Your task to perform on an android device: Open calendar and show me the second week of next month Image 0: 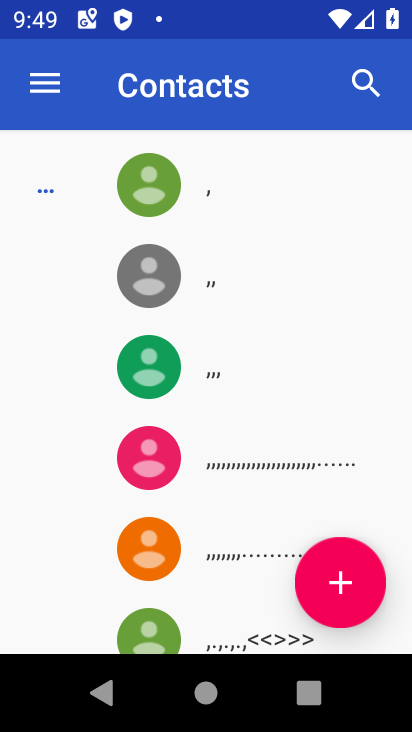
Step 0: press home button
Your task to perform on an android device: Open calendar and show me the second week of next month Image 1: 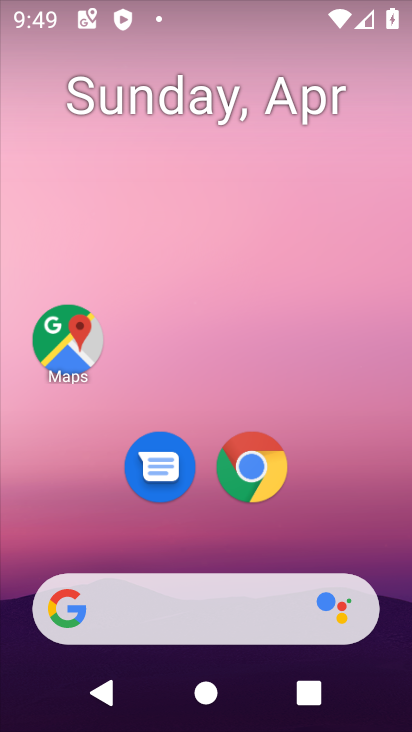
Step 1: drag from (181, 453) to (250, 52)
Your task to perform on an android device: Open calendar and show me the second week of next month Image 2: 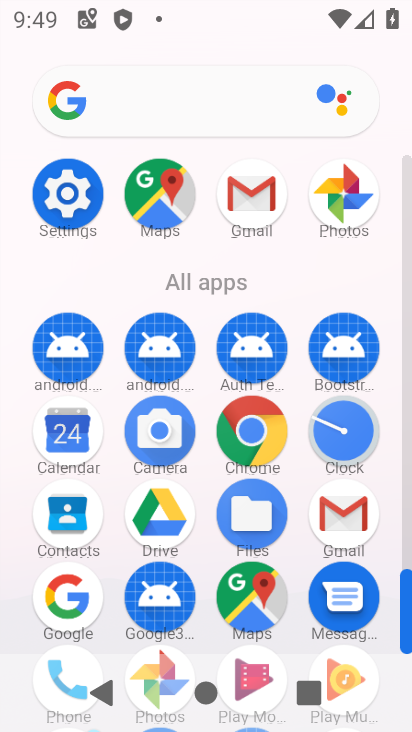
Step 2: click (82, 430)
Your task to perform on an android device: Open calendar and show me the second week of next month Image 3: 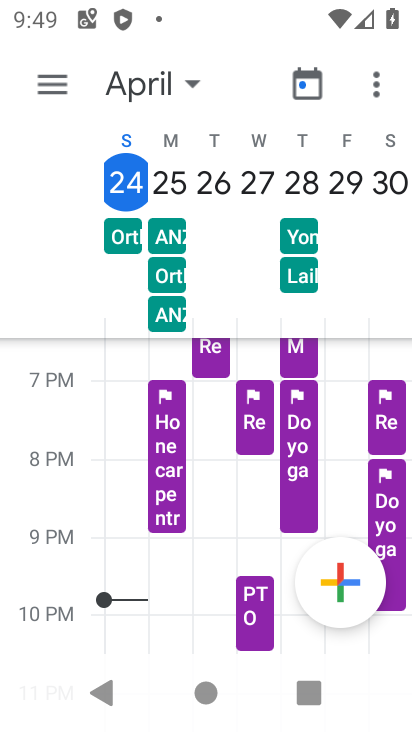
Step 3: click (190, 87)
Your task to perform on an android device: Open calendar and show me the second week of next month Image 4: 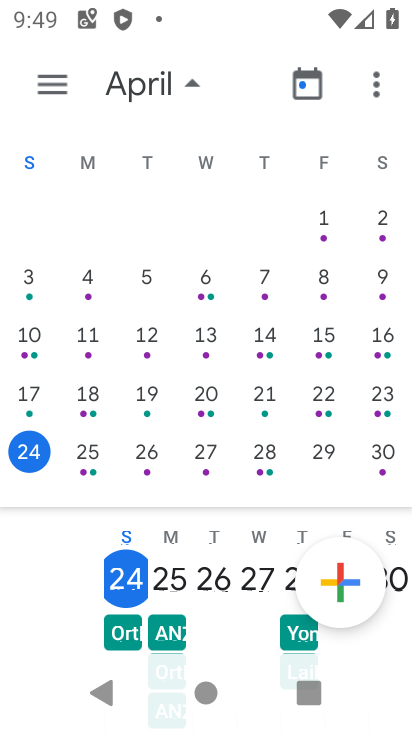
Step 4: drag from (367, 306) to (0, 208)
Your task to perform on an android device: Open calendar and show me the second week of next month Image 5: 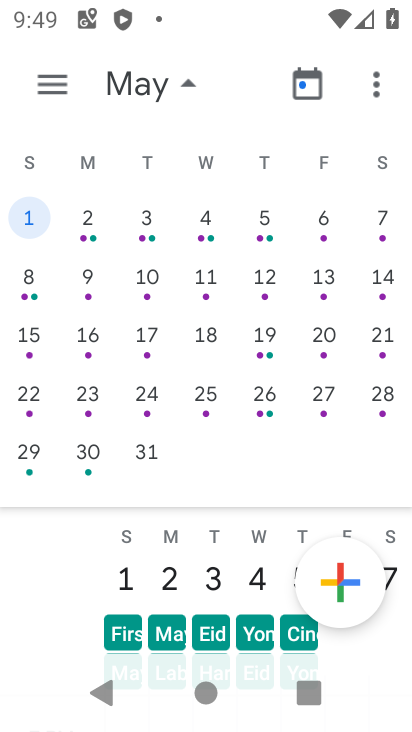
Step 5: click (190, 84)
Your task to perform on an android device: Open calendar and show me the second week of next month Image 6: 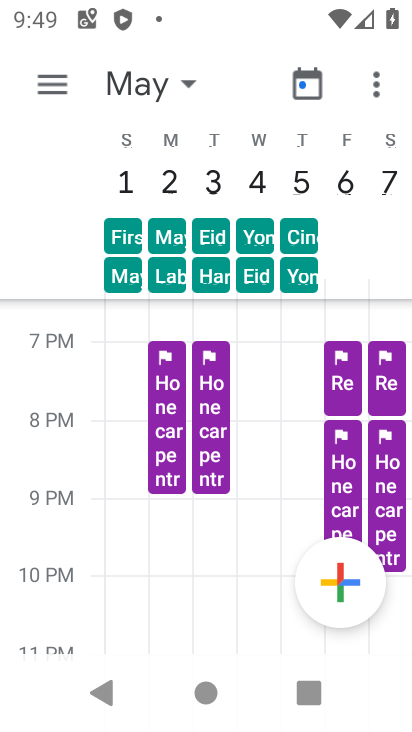
Step 6: click (54, 94)
Your task to perform on an android device: Open calendar and show me the second week of next month Image 7: 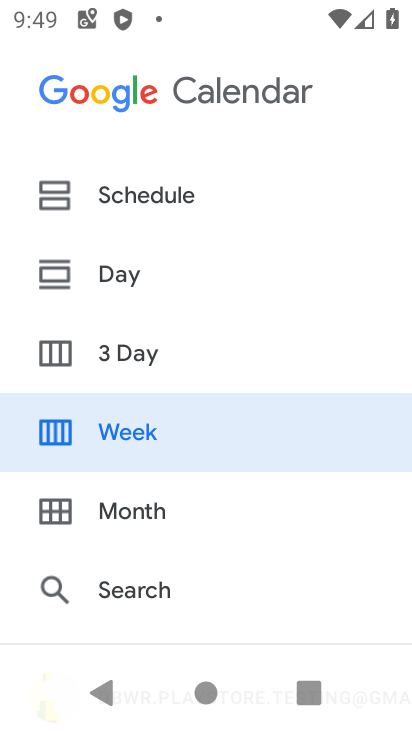
Step 7: task complete